Your task to perform on an android device: Open privacy settings Image 0: 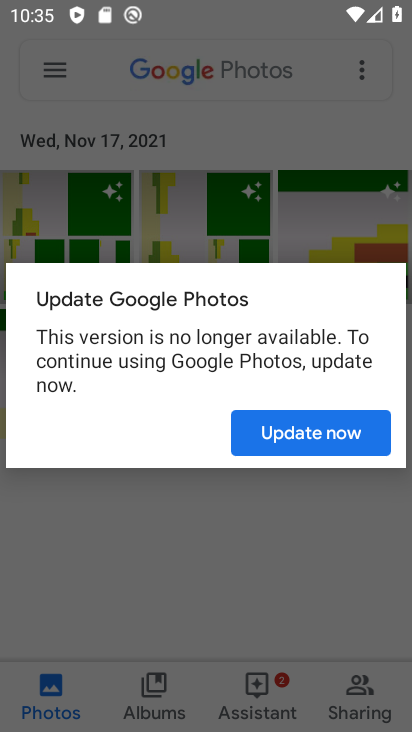
Step 0: press home button
Your task to perform on an android device: Open privacy settings Image 1: 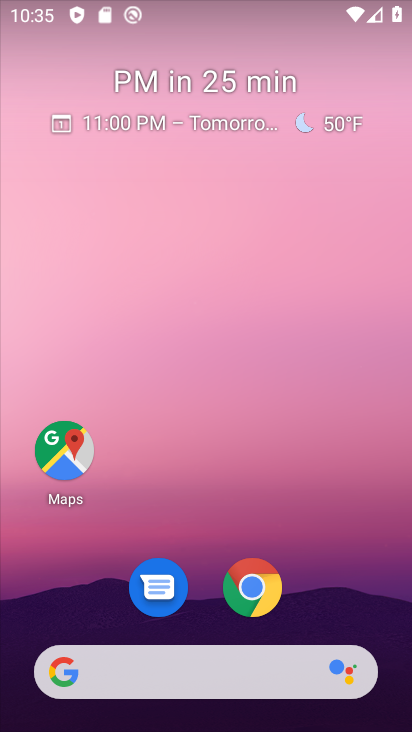
Step 1: drag from (193, 591) to (93, 26)
Your task to perform on an android device: Open privacy settings Image 2: 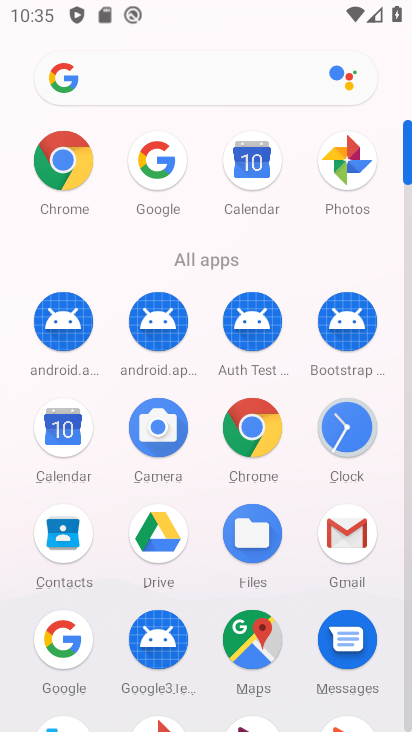
Step 2: drag from (208, 580) to (200, 68)
Your task to perform on an android device: Open privacy settings Image 3: 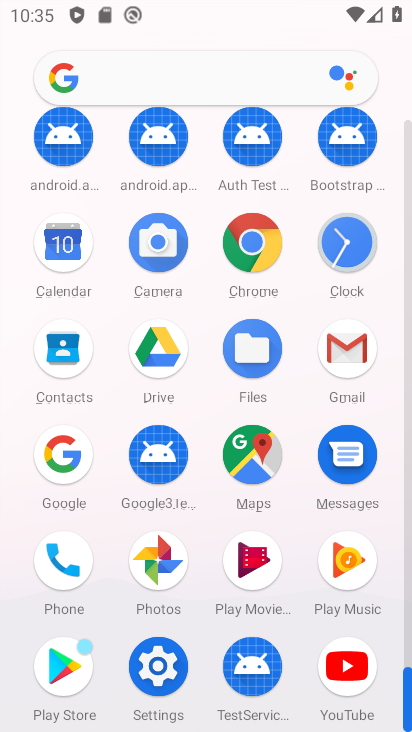
Step 3: click (156, 656)
Your task to perform on an android device: Open privacy settings Image 4: 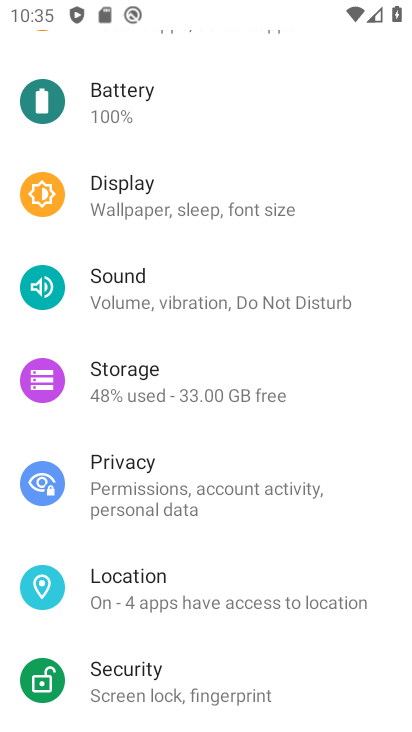
Step 4: click (159, 500)
Your task to perform on an android device: Open privacy settings Image 5: 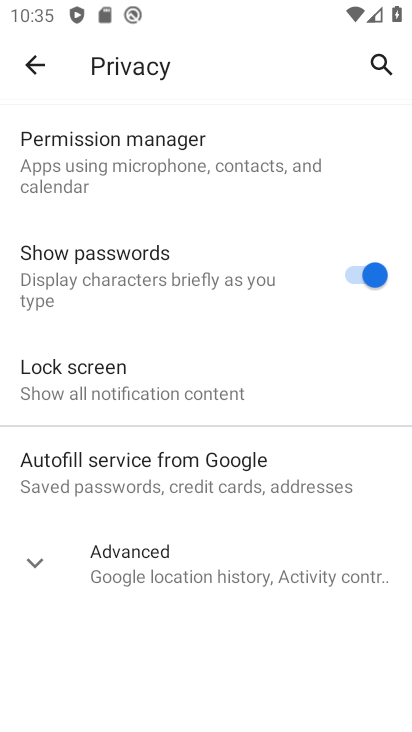
Step 5: click (116, 553)
Your task to perform on an android device: Open privacy settings Image 6: 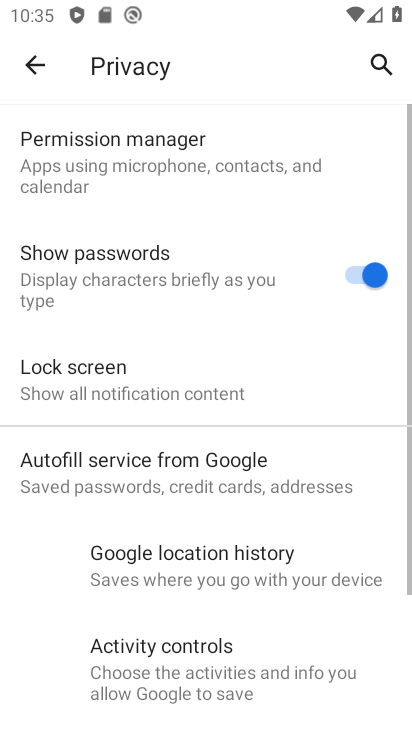
Step 6: task complete